Your task to perform on an android device: turn off wifi Image 0: 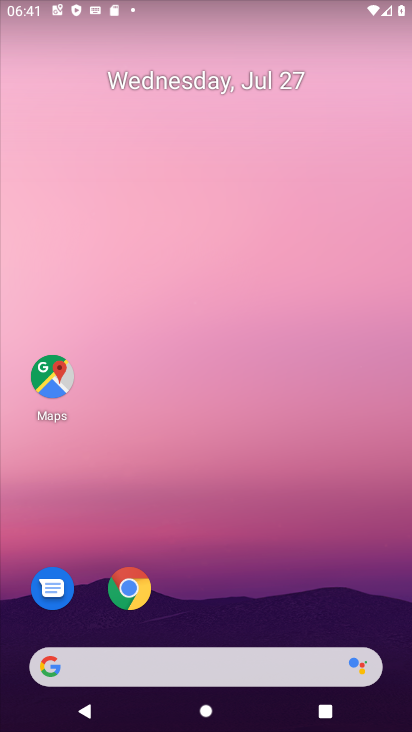
Step 0: drag from (285, 645) to (354, 5)
Your task to perform on an android device: turn off wifi Image 1: 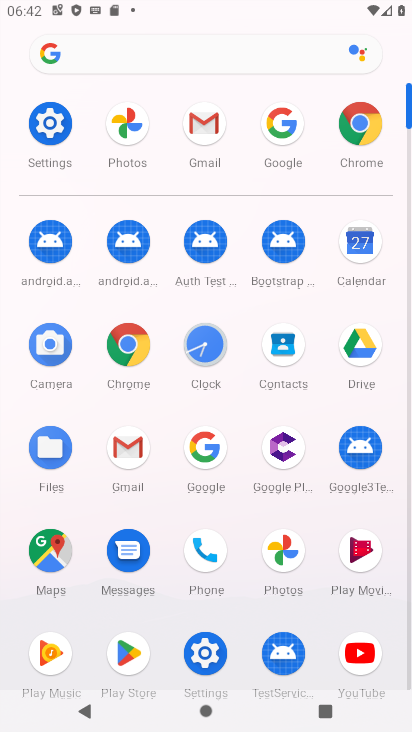
Step 1: click (62, 116)
Your task to perform on an android device: turn off wifi Image 2: 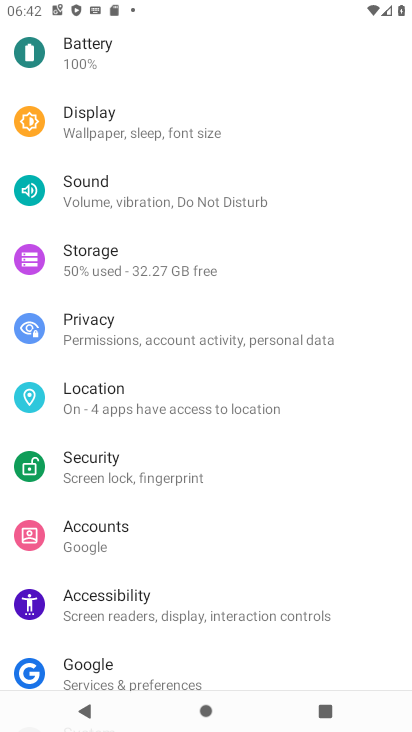
Step 2: drag from (143, 119) to (158, 534)
Your task to perform on an android device: turn off wifi Image 3: 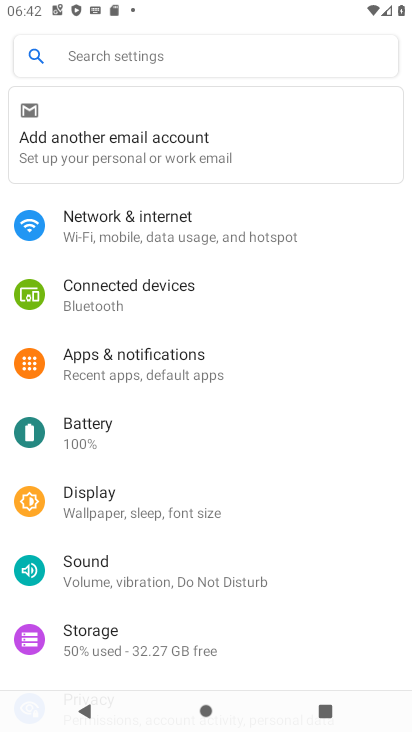
Step 3: click (196, 229)
Your task to perform on an android device: turn off wifi Image 4: 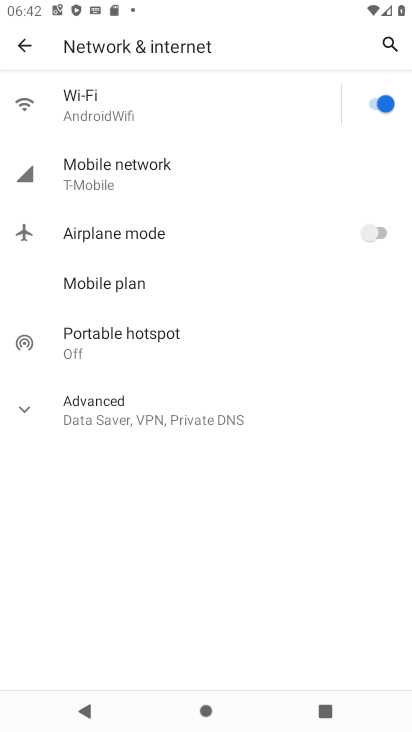
Step 4: click (382, 95)
Your task to perform on an android device: turn off wifi Image 5: 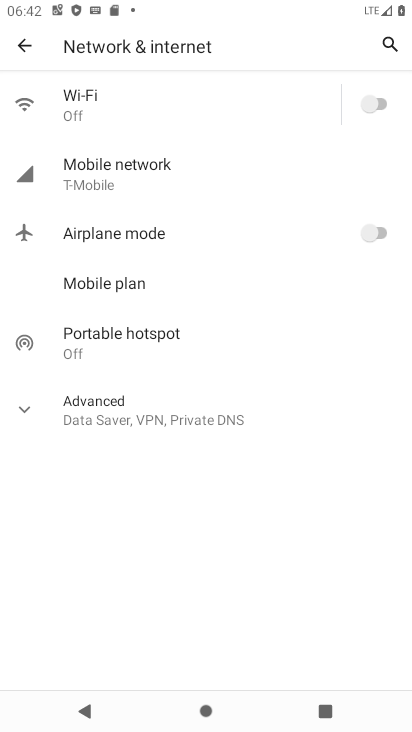
Step 5: task complete